Your task to perform on an android device: Open Yahoo.com Image 0: 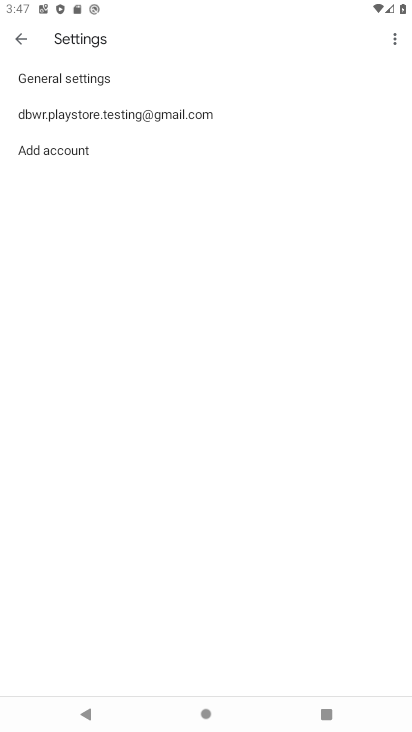
Step 0: press back button
Your task to perform on an android device: Open Yahoo.com Image 1: 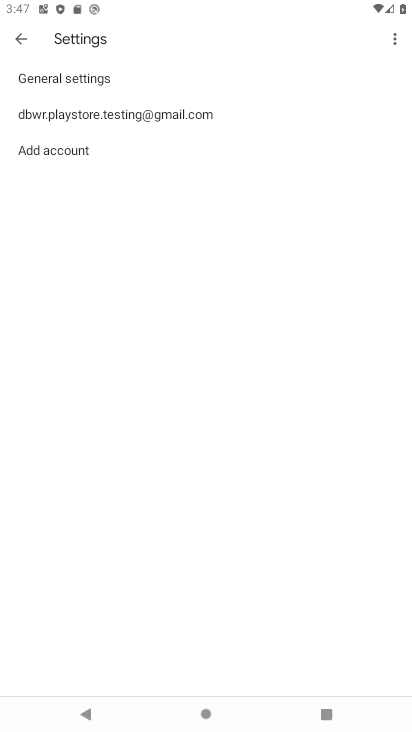
Step 1: press home button
Your task to perform on an android device: Open Yahoo.com Image 2: 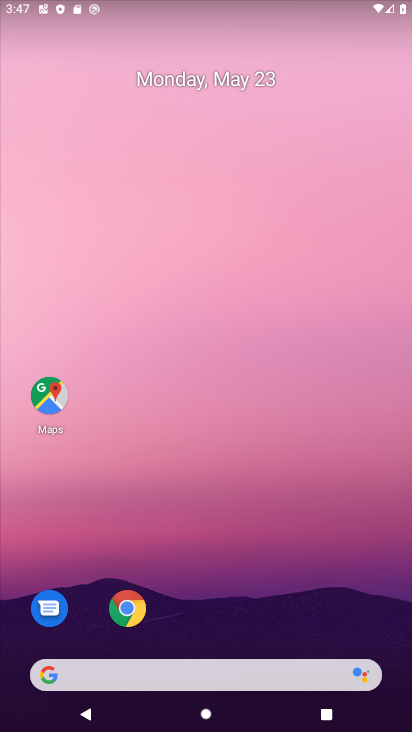
Step 2: click (128, 608)
Your task to perform on an android device: Open Yahoo.com Image 3: 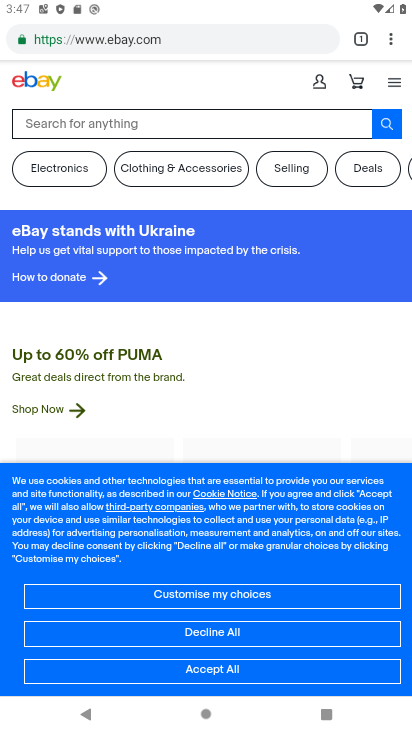
Step 3: click (208, 36)
Your task to perform on an android device: Open Yahoo.com Image 4: 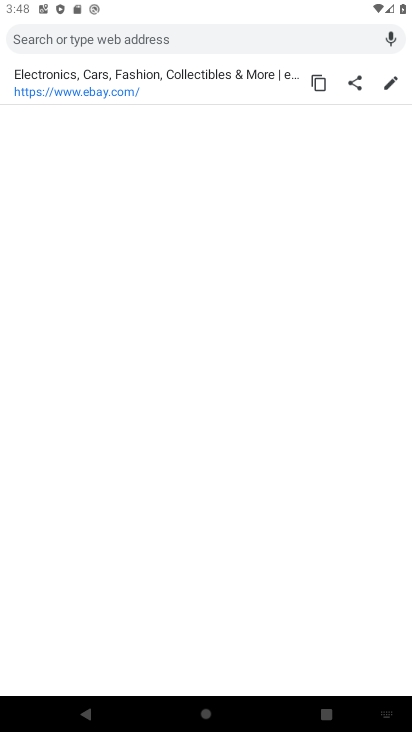
Step 4: type "Yahoo.com"
Your task to perform on an android device: Open Yahoo.com Image 5: 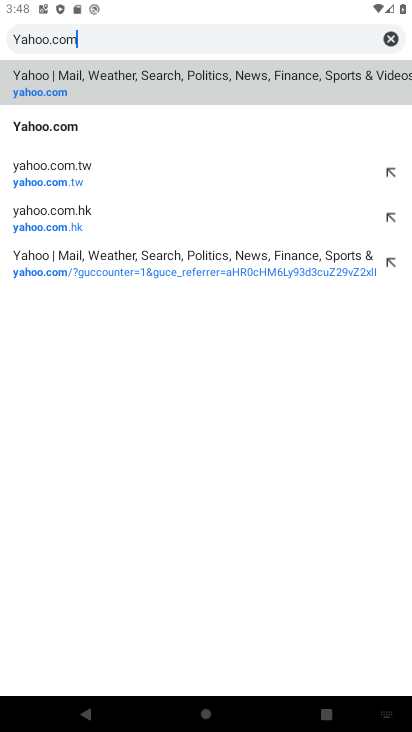
Step 5: type ""
Your task to perform on an android device: Open Yahoo.com Image 6: 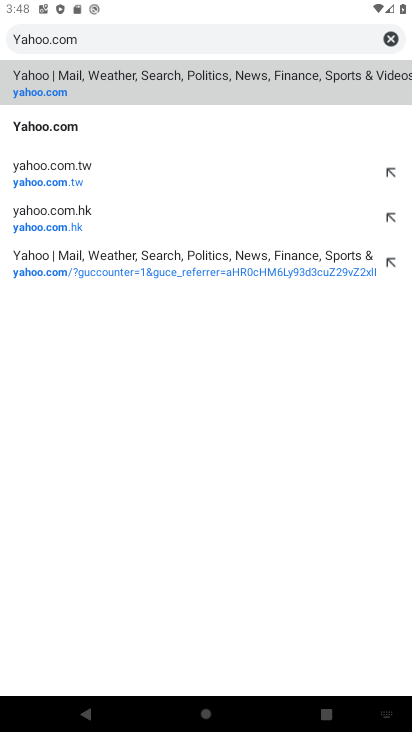
Step 6: click (61, 123)
Your task to perform on an android device: Open Yahoo.com Image 7: 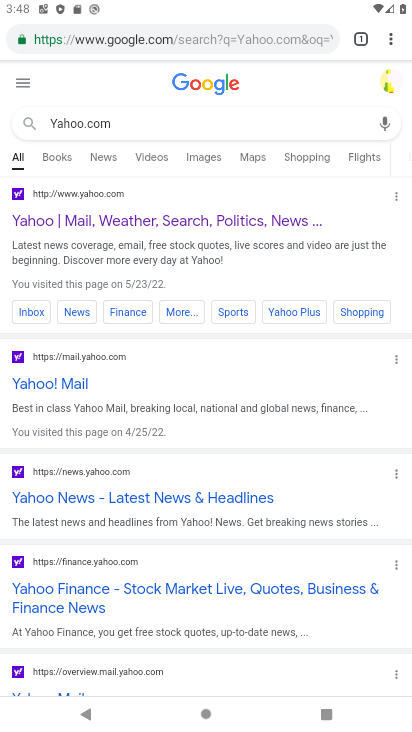
Step 7: click (43, 214)
Your task to perform on an android device: Open Yahoo.com Image 8: 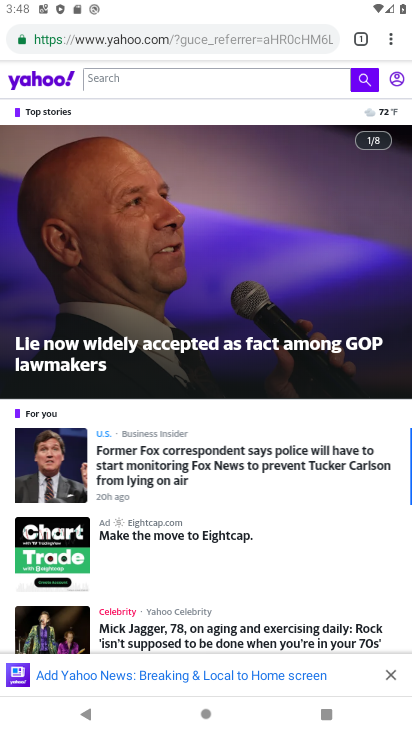
Step 8: task complete